Your task to perform on an android device: install app "Google Pay: Save, Pay, Manage" Image 0: 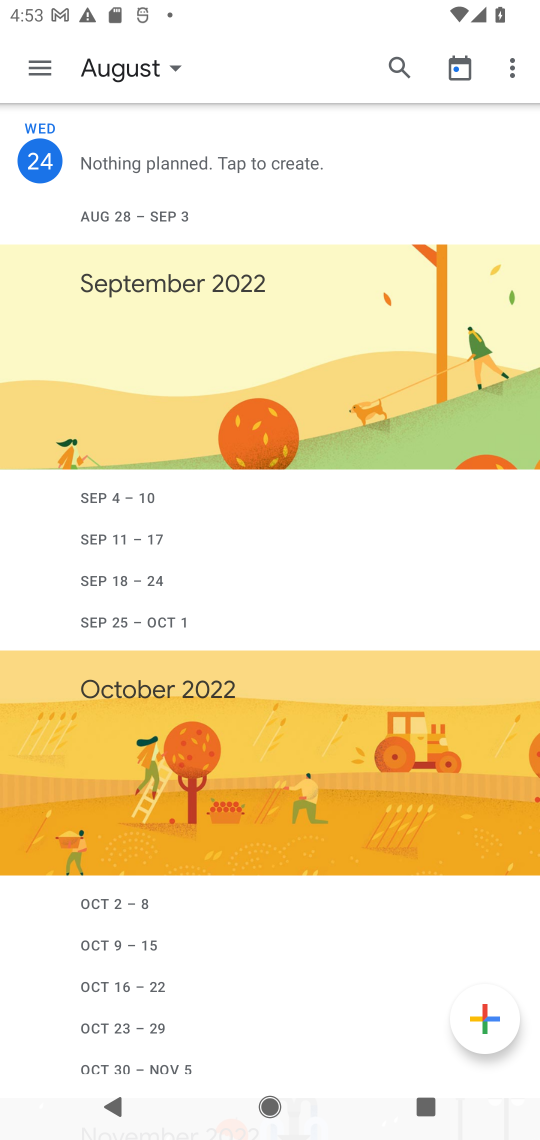
Step 0: press home button
Your task to perform on an android device: install app "Google Pay: Save, Pay, Manage" Image 1: 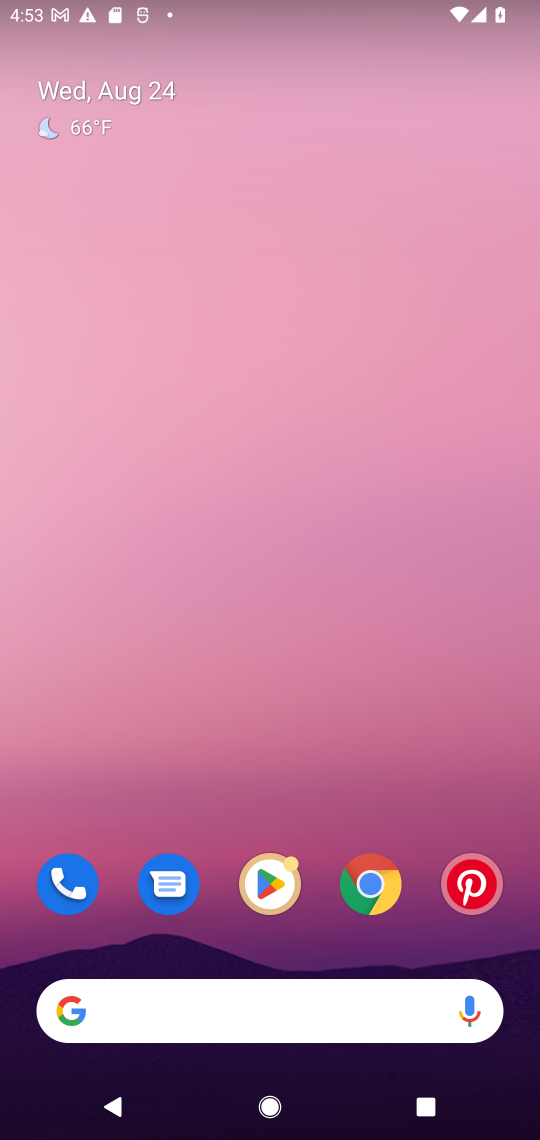
Step 1: click (279, 886)
Your task to perform on an android device: install app "Google Pay: Save, Pay, Manage" Image 2: 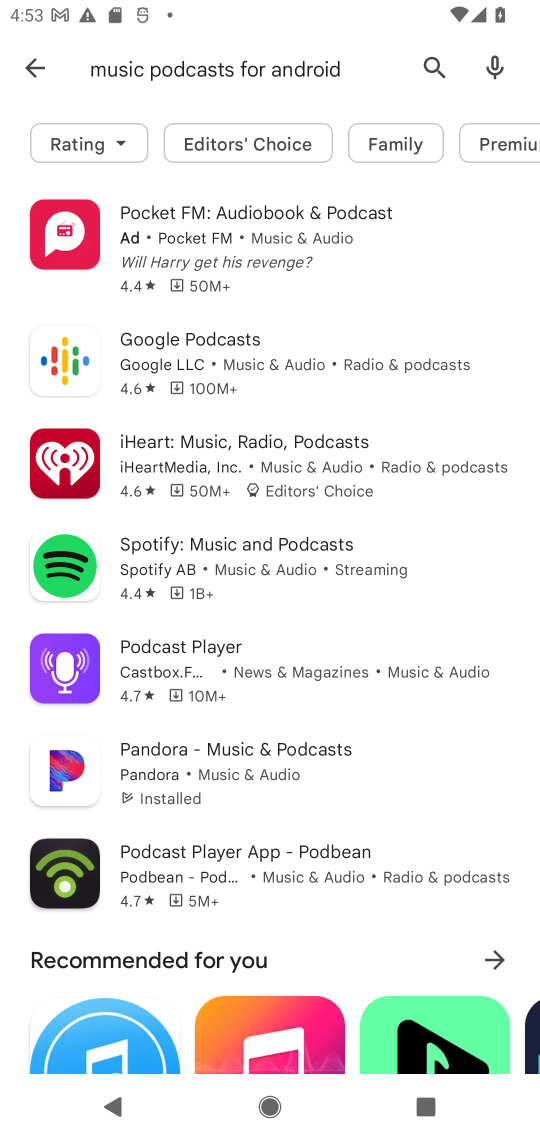
Step 2: click (29, 67)
Your task to perform on an android device: install app "Google Pay: Save, Pay, Manage" Image 3: 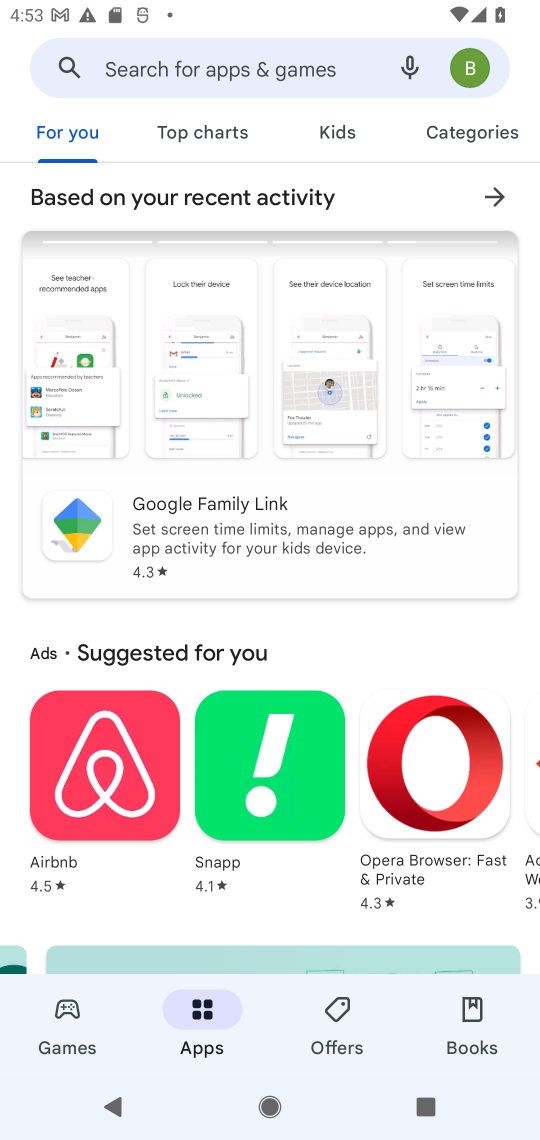
Step 3: click (218, 67)
Your task to perform on an android device: install app "Google Pay: Save, Pay, Manage" Image 4: 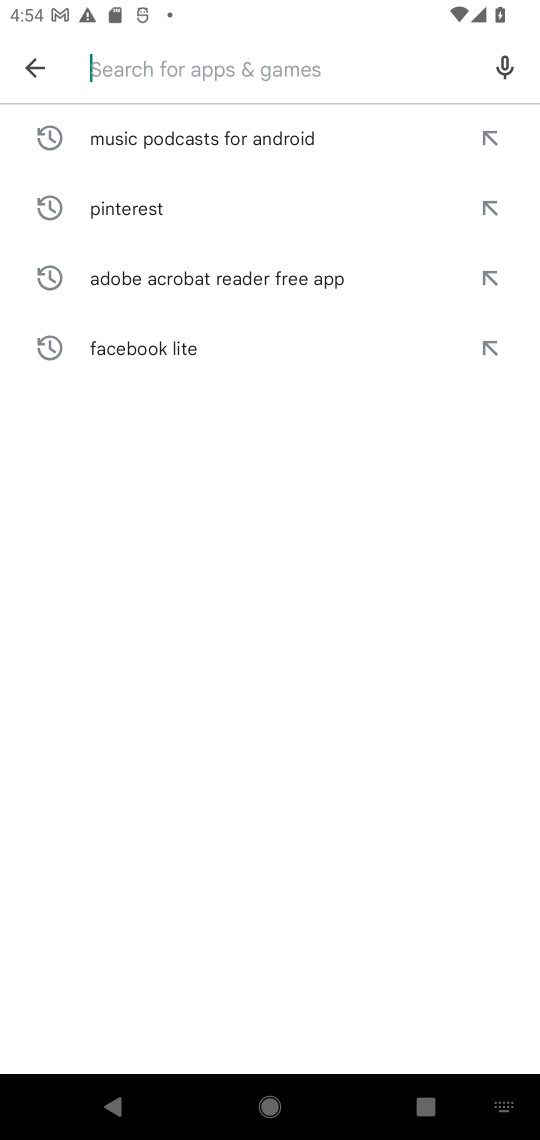
Step 4: type "Google Pay: Save, Pay, Manage"
Your task to perform on an android device: install app "Google Pay: Save, Pay, Manage" Image 5: 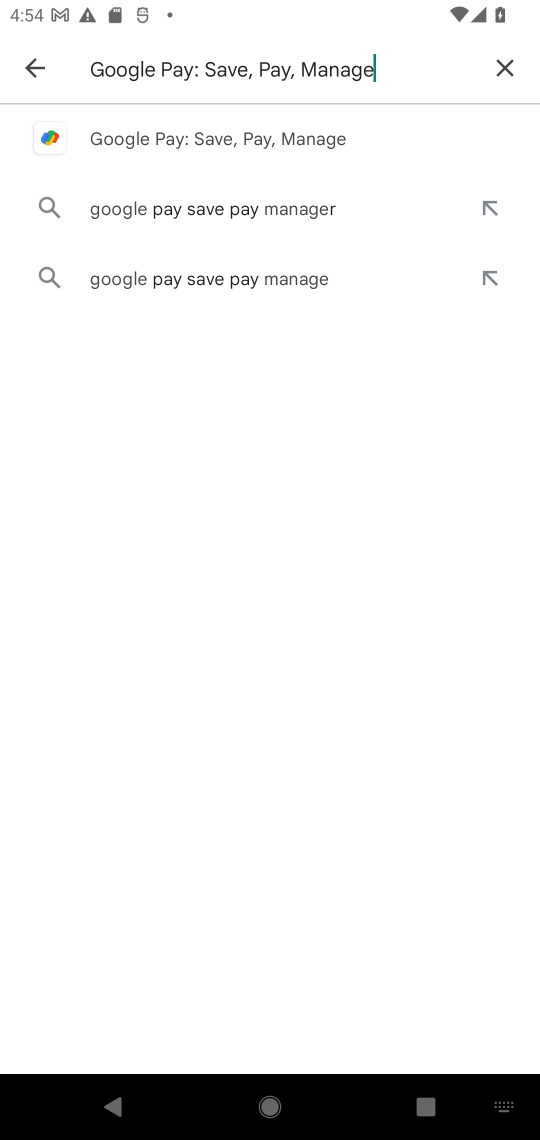
Step 5: click (221, 131)
Your task to perform on an android device: install app "Google Pay: Save, Pay, Manage" Image 6: 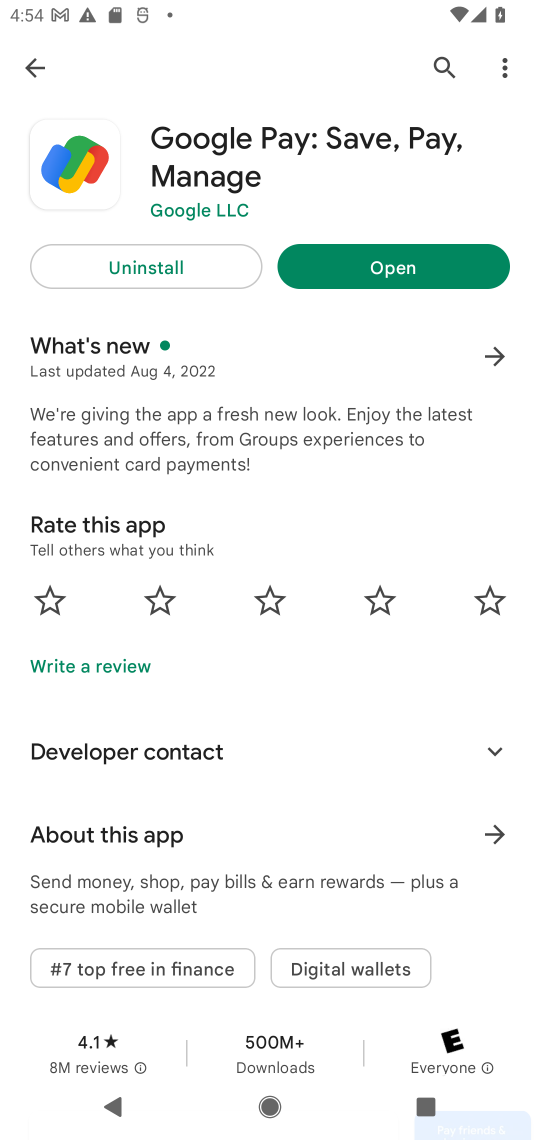
Step 6: click (381, 267)
Your task to perform on an android device: install app "Google Pay: Save, Pay, Manage" Image 7: 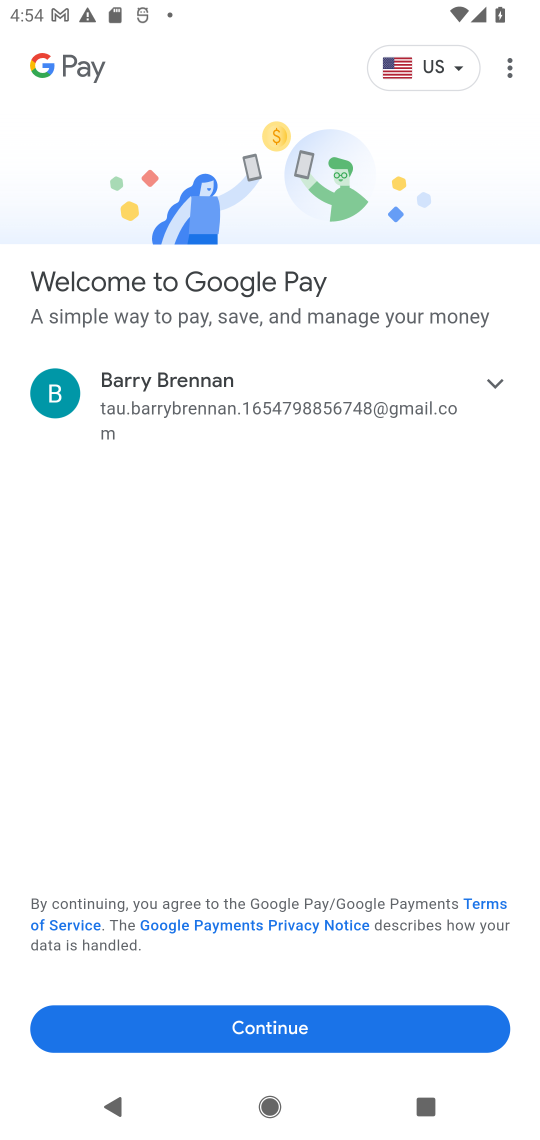
Step 7: task complete